Your task to perform on an android device: add a label to a message in the gmail app Image 0: 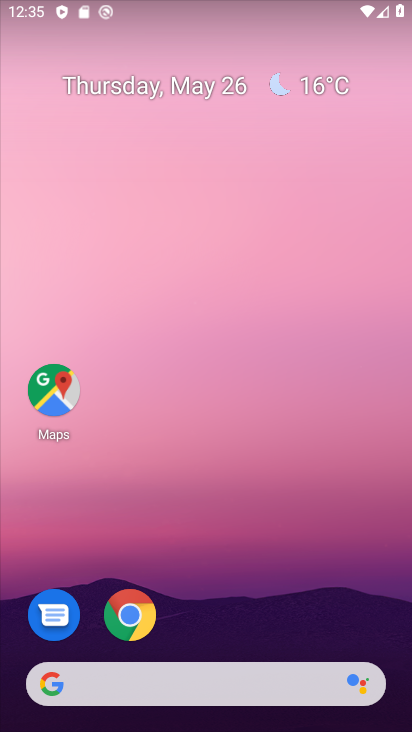
Step 0: drag from (186, 618) to (216, 234)
Your task to perform on an android device: add a label to a message in the gmail app Image 1: 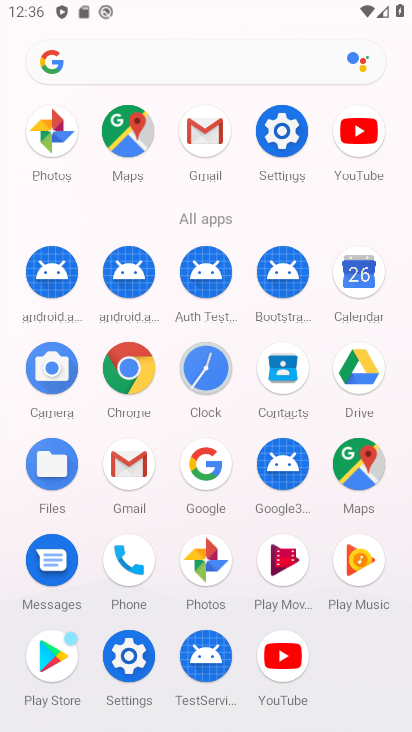
Step 1: click (145, 453)
Your task to perform on an android device: add a label to a message in the gmail app Image 2: 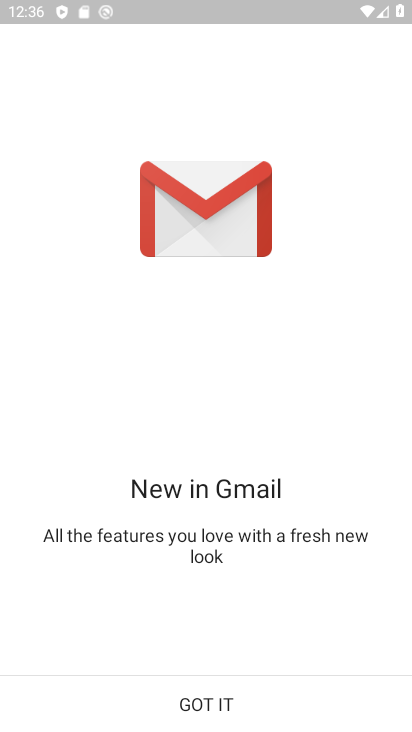
Step 2: click (199, 695)
Your task to perform on an android device: add a label to a message in the gmail app Image 3: 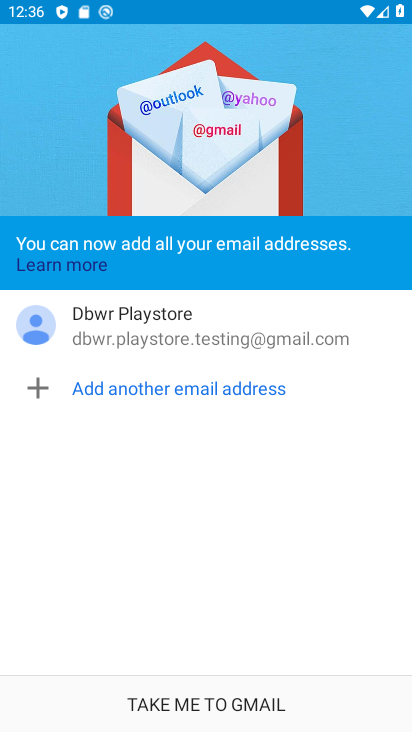
Step 3: task complete